Your task to perform on an android device: Go to internet settings Image 0: 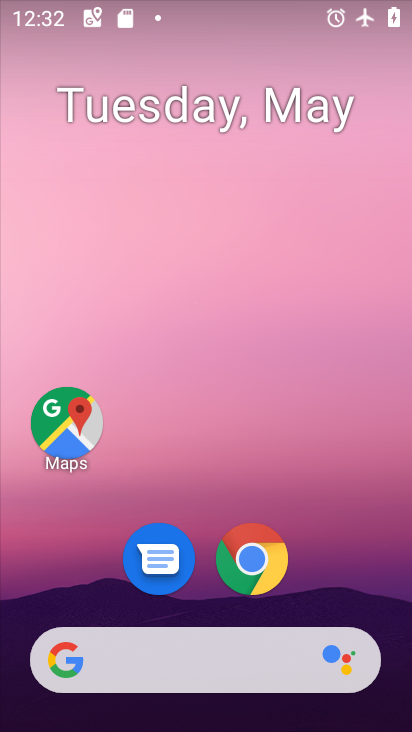
Step 0: drag from (351, 601) to (281, 164)
Your task to perform on an android device: Go to internet settings Image 1: 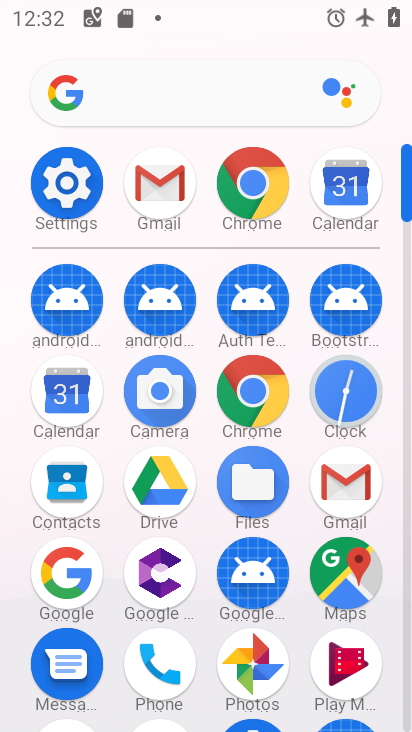
Step 1: click (71, 179)
Your task to perform on an android device: Go to internet settings Image 2: 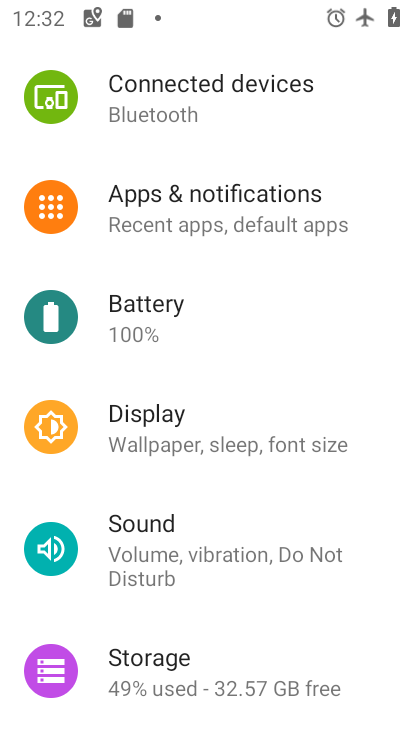
Step 2: drag from (217, 202) to (277, 723)
Your task to perform on an android device: Go to internet settings Image 3: 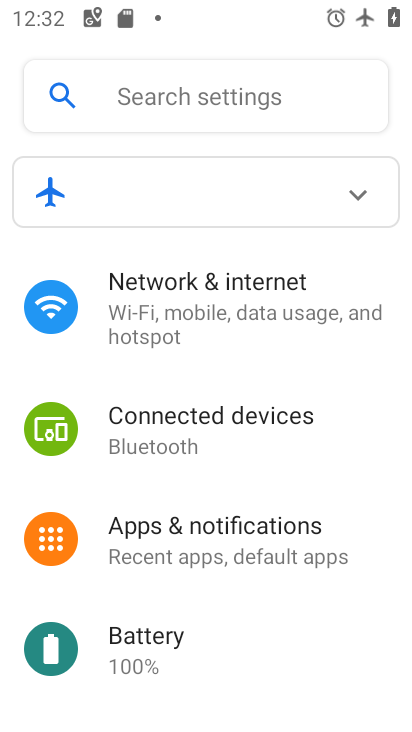
Step 3: click (232, 319)
Your task to perform on an android device: Go to internet settings Image 4: 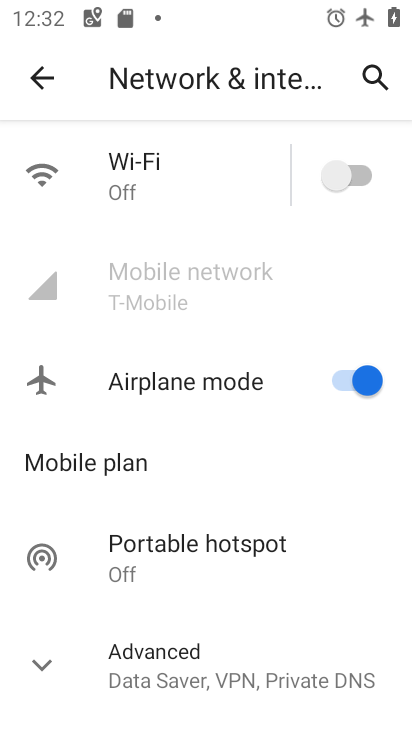
Step 4: task complete